Your task to perform on an android device: Is it going to rain tomorrow? Image 0: 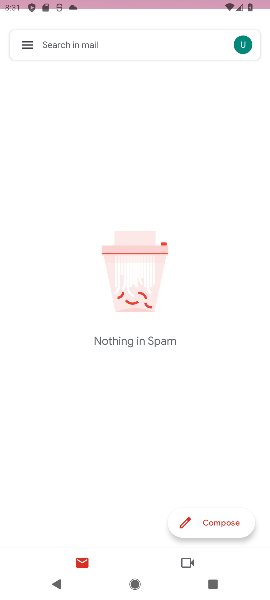
Step 0: click (226, 59)
Your task to perform on an android device: Is it going to rain tomorrow? Image 1: 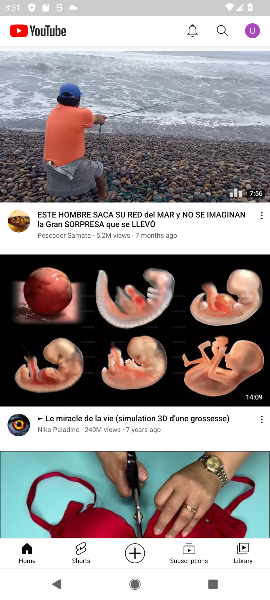
Step 1: drag from (177, 469) to (183, 253)
Your task to perform on an android device: Is it going to rain tomorrow? Image 2: 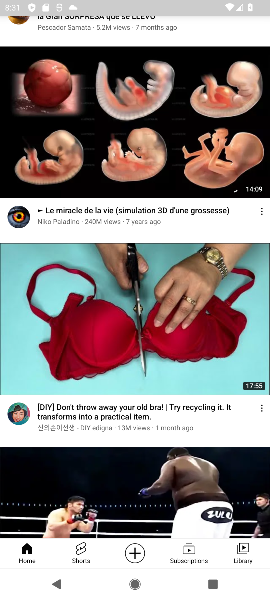
Step 2: press home button
Your task to perform on an android device: Is it going to rain tomorrow? Image 3: 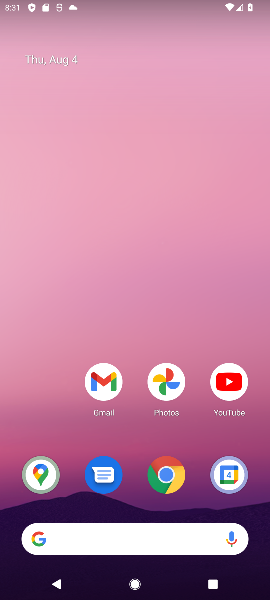
Step 3: drag from (127, 498) to (89, 235)
Your task to perform on an android device: Is it going to rain tomorrow? Image 4: 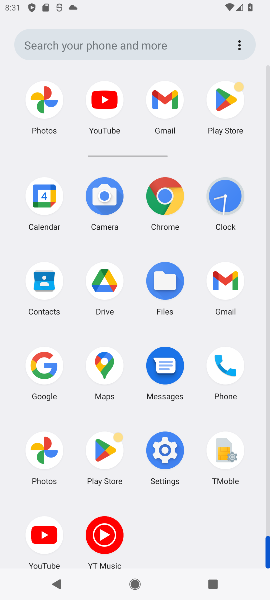
Step 4: click (60, 52)
Your task to perform on an android device: Is it going to rain tomorrow? Image 5: 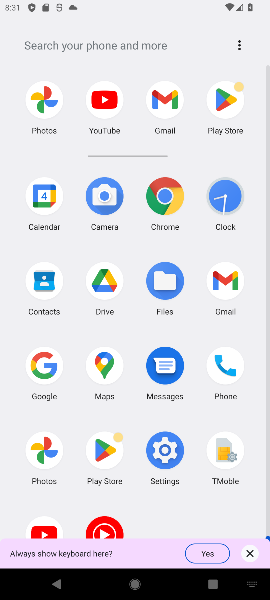
Step 5: type "Is it going to rain tomorrow?"
Your task to perform on an android device: Is it going to rain tomorrow? Image 6: 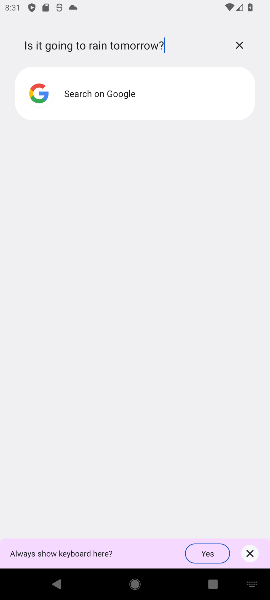
Step 6: type ""
Your task to perform on an android device: Is it going to rain tomorrow? Image 7: 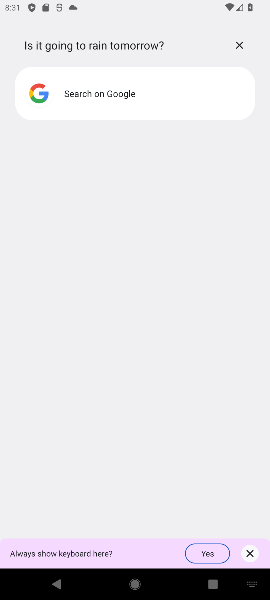
Step 7: click (66, 81)
Your task to perform on an android device: Is it going to rain tomorrow? Image 8: 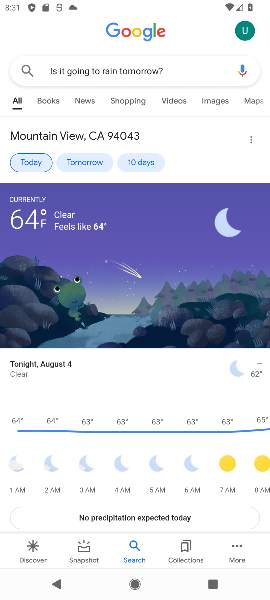
Step 8: task complete